Your task to perform on an android device: Search for vegetarian restaurants on Maps Image 0: 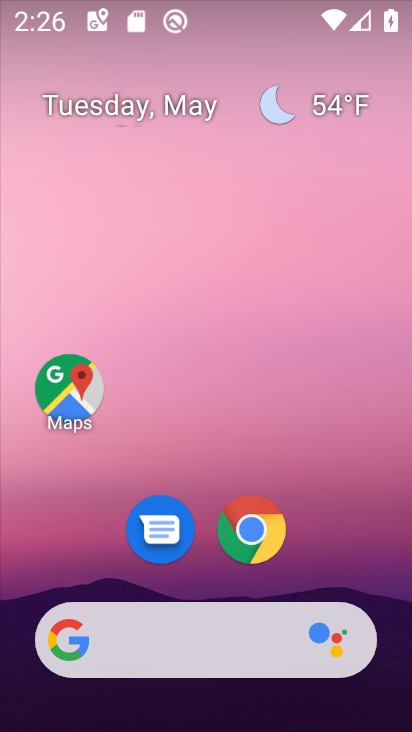
Step 0: drag from (329, 553) to (296, 260)
Your task to perform on an android device: Search for vegetarian restaurants on Maps Image 1: 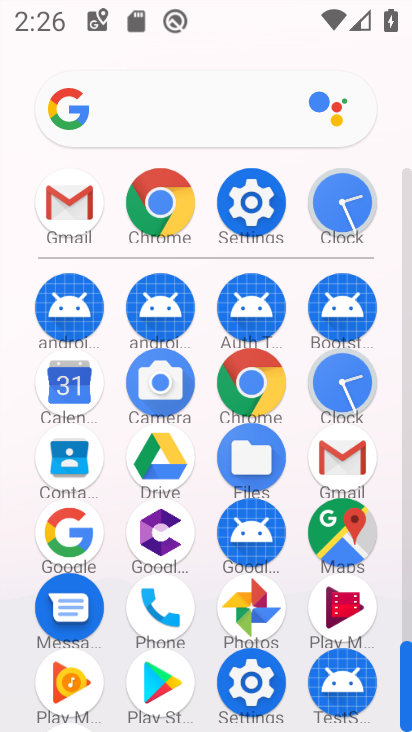
Step 1: click (328, 532)
Your task to perform on an android device: Search for vegetarian restaurants on Maps Image 2: 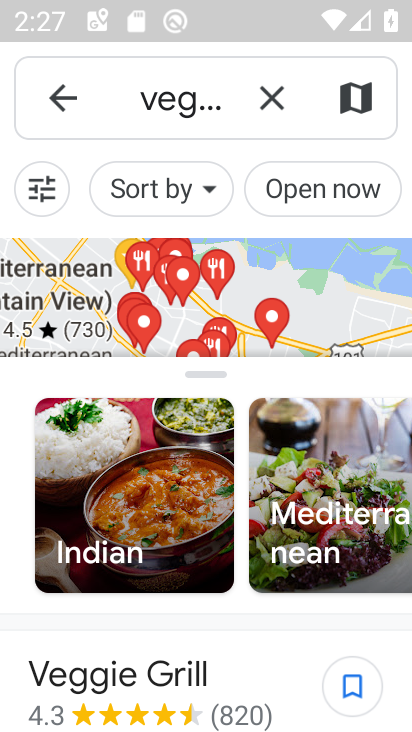
Step 2: task complete